Your task to perform on an android device: What's on my calendar today? Image 0: 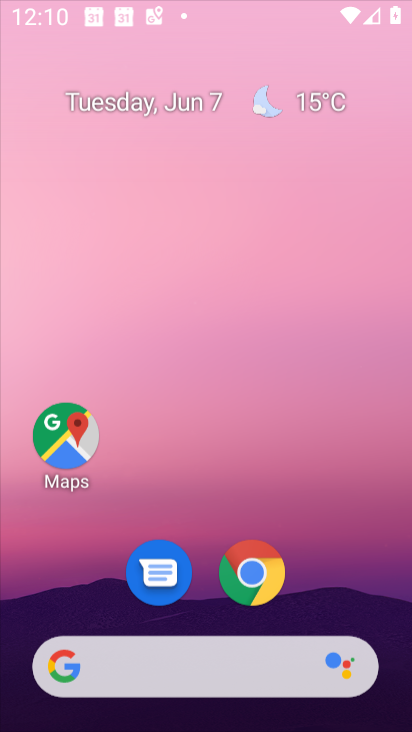
Step 0: press home button
Your task to perform on an android device: What's on my calendar today? Image 1: 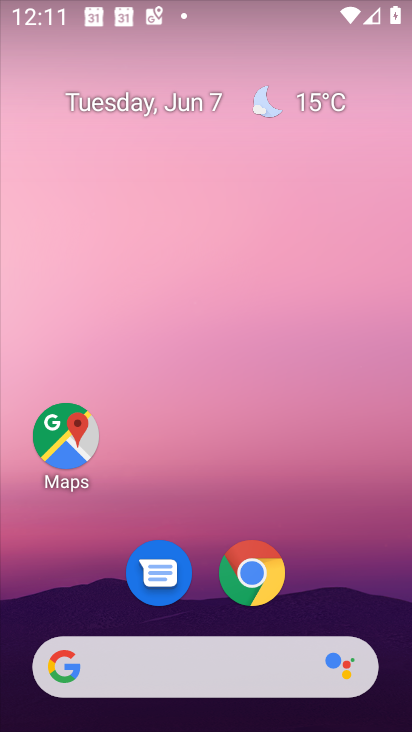
Step 1: drag from (344, 592) to (337, 118)
Your task to perform on an android device: What's on my calendar today? Image 2: 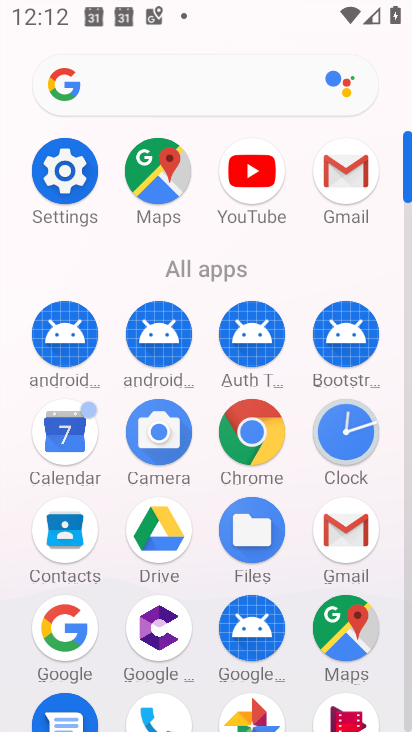
Step 2: click (57, 419)
Your task to perform on an android device: What's on my calendar today? Image 3: 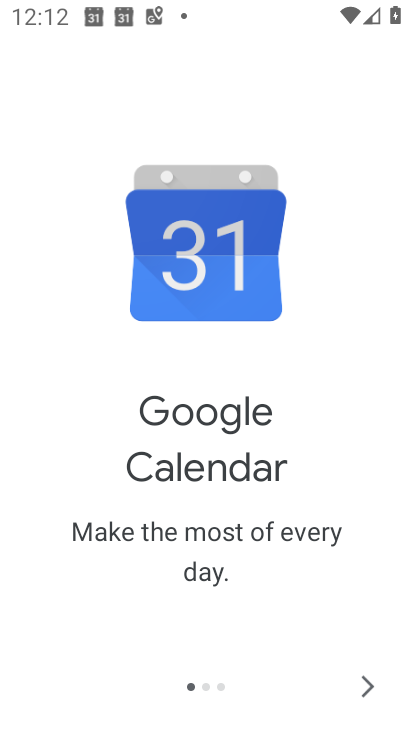
Step 3: click (371, 695)
Your task to perform on an android device: What's on my calendar today? Image 4: 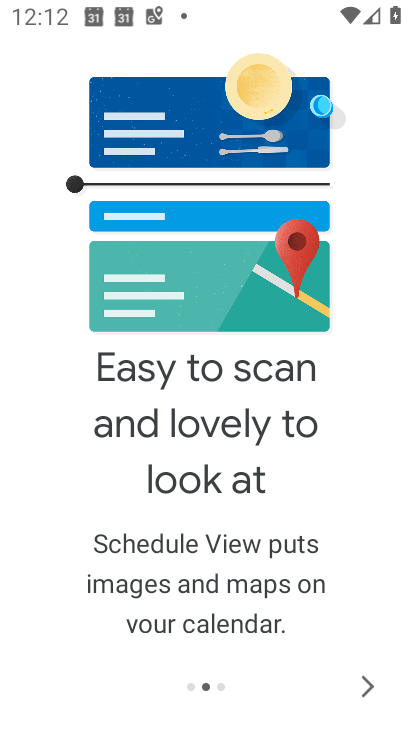
Step 4: click (370, 688)
Your task to perform on an android device: What's on my calendar today? Image 5: 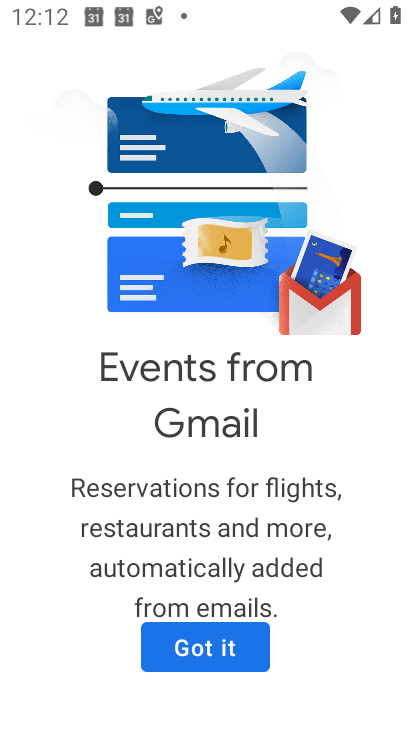
Step 5: click (224, 648)
Your task to perform on an android device: What's on my calendar today? Image 6: 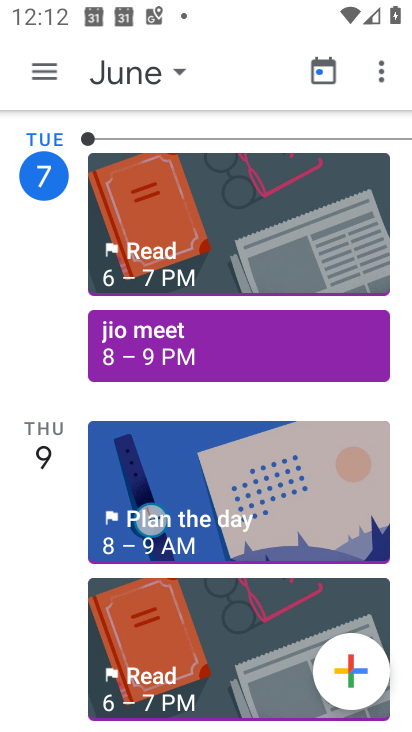
Step 6: click (40, 72)
Your task to perform on an android device: What's on my calendar today? Image 7: 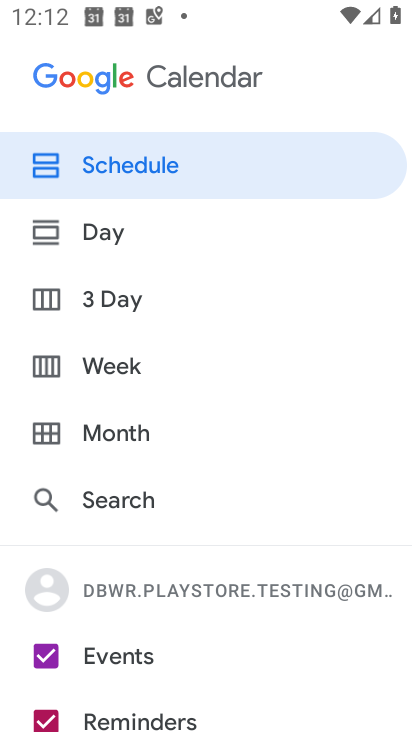
Step 7: click (162, 243)
Your task to perform on an android device: What's on my calendar today? Image 8: 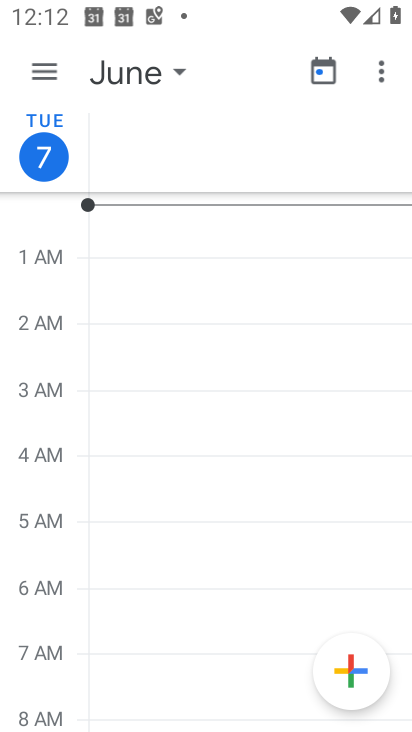
Step 8: task complete